Your task to perform on an android device: Go to battery settings Image 0: 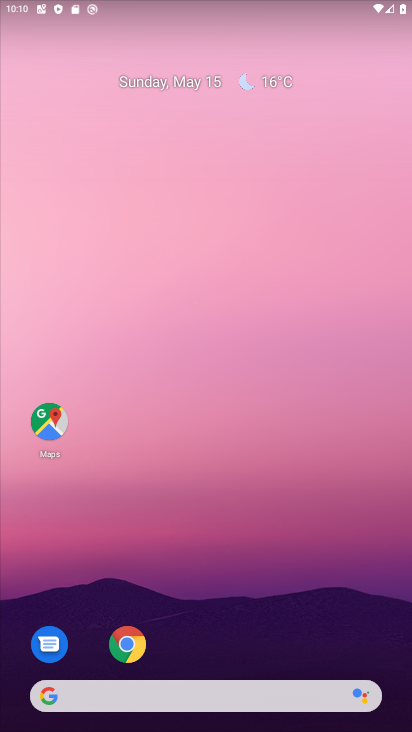
Step 0: drag from (317, 619) to (261, 71)
Your task to perform on an android device: Go to battery settings Image 1: 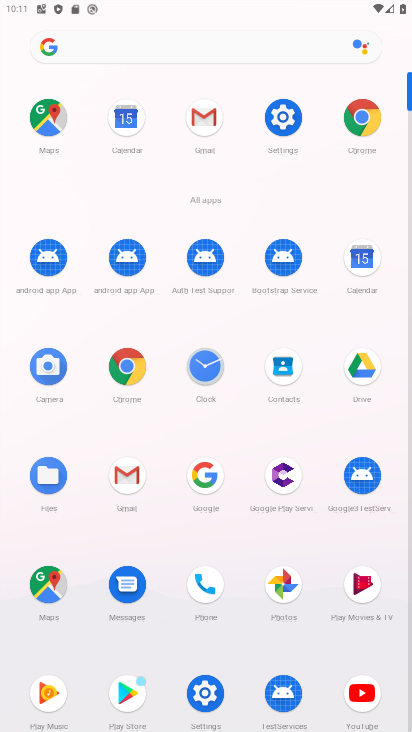
Step 1: click (290, 138)
Your task to perform on an android device: Go to battery settings Image 2: 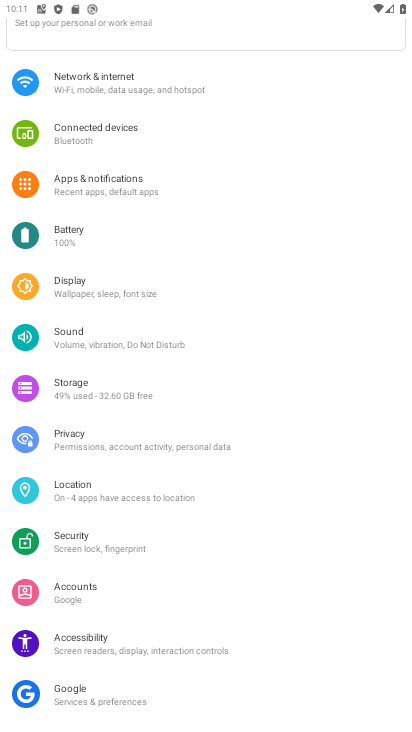
Step 2: click (100, 235)
Your task to perform on an android device: Go to battery settings Image 3: 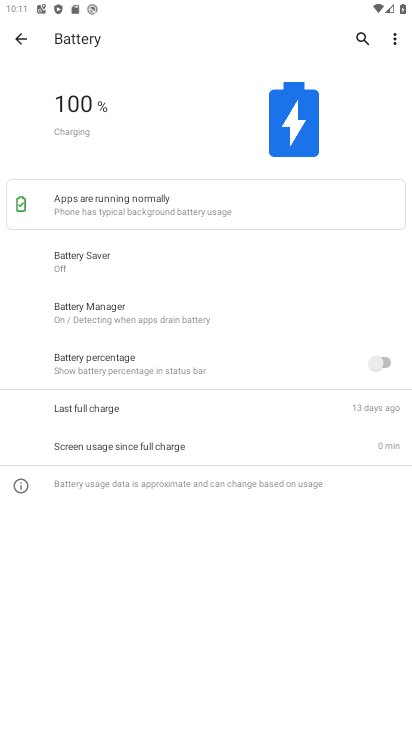
Step 3: task complete